Your task to perform on an android device: open a bookmark in the chrome app Image 0: 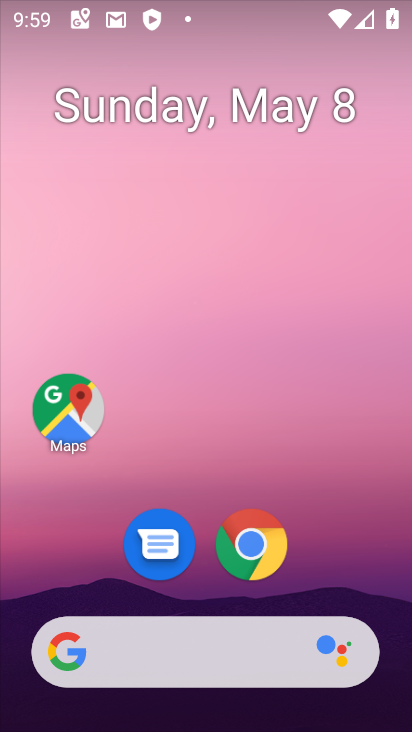
Step 0: click (275, 568)
Your task to perform on an android device: open a bookmark in the chrome app Image 1: 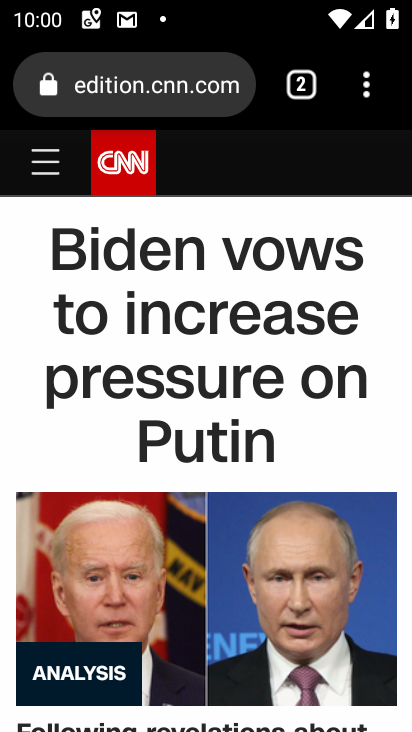
Step 1: click (372, 71)
Your task to perform on an android device: open a bookmark in the chrome app Image 2: 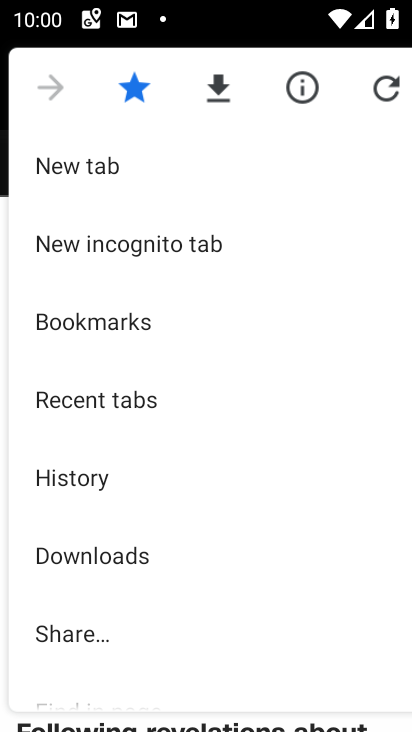
Step 2: click (58, 317)
Your task to perform on an android device: open a bookmark in the chrome app Image 3: 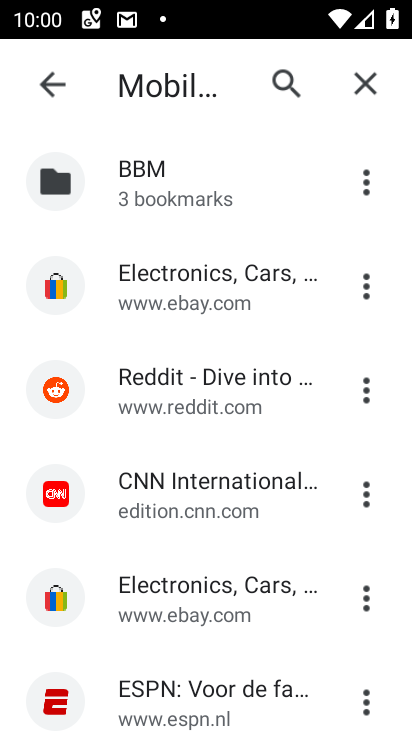
Step 3: click (165, 283)
Your task to perform on an android device: open a bookmark in the chrome app Image 4: 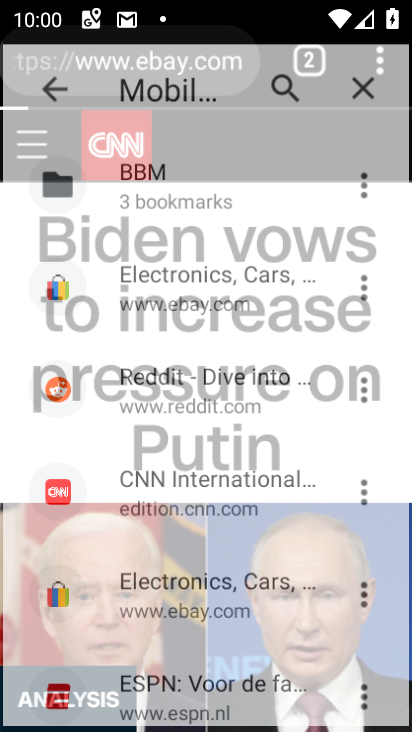
Step 4: task complete